Your task to perform on an android device: uninstall "Yahoo Mail" Image 0: 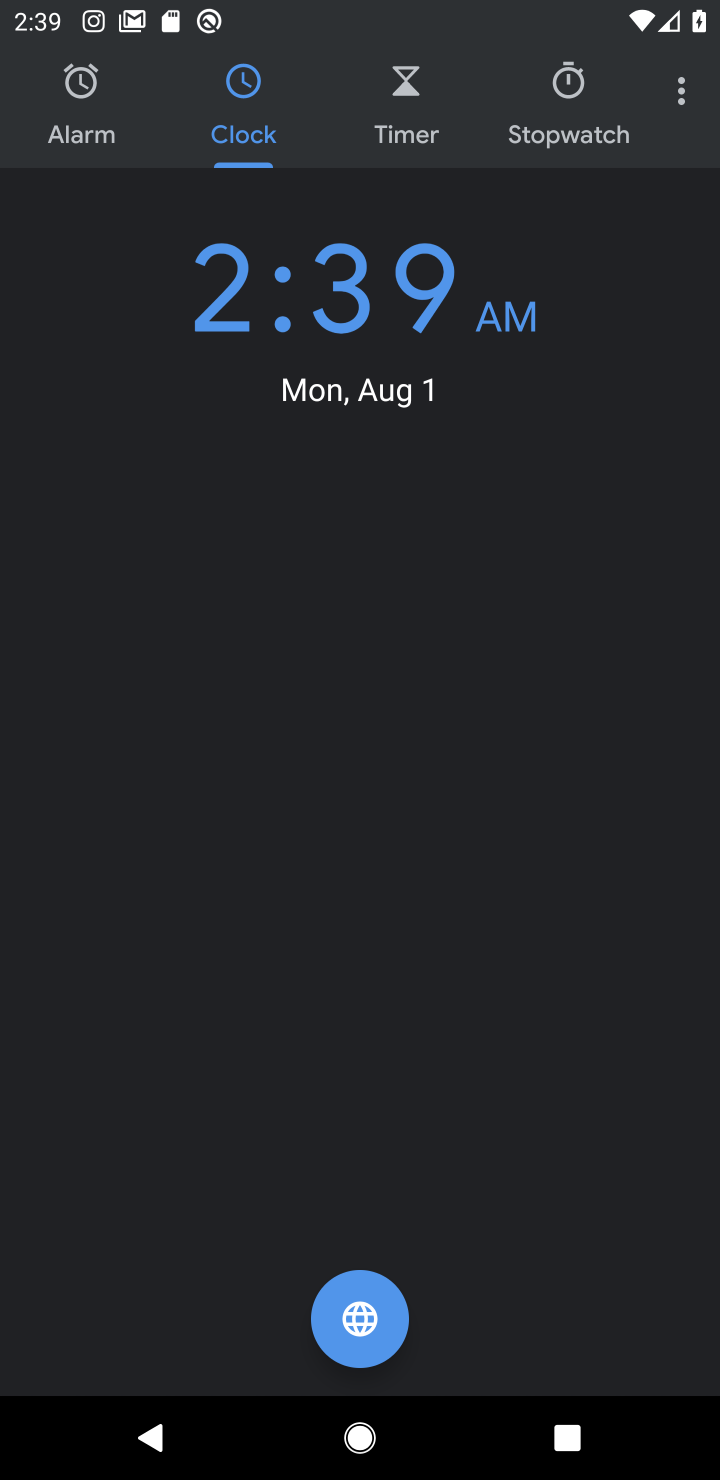
Step 0: press home button
Your task to perform on an android device: uninstall "Yahoo Mail" Image 1: 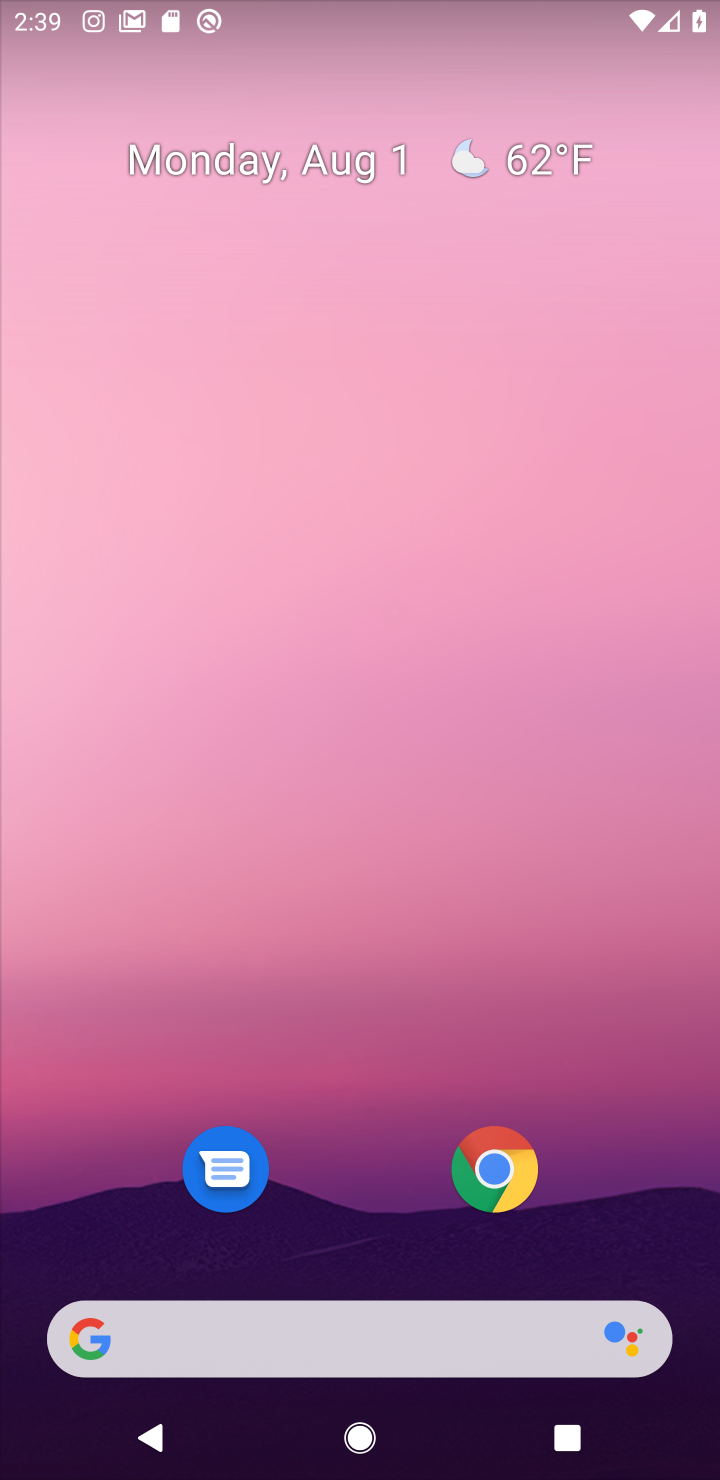
Step 1: drag from (310, 1235) to (379, 175)
Your task to perform on an android device: uninstall "Yahoo Mail" Image 2: 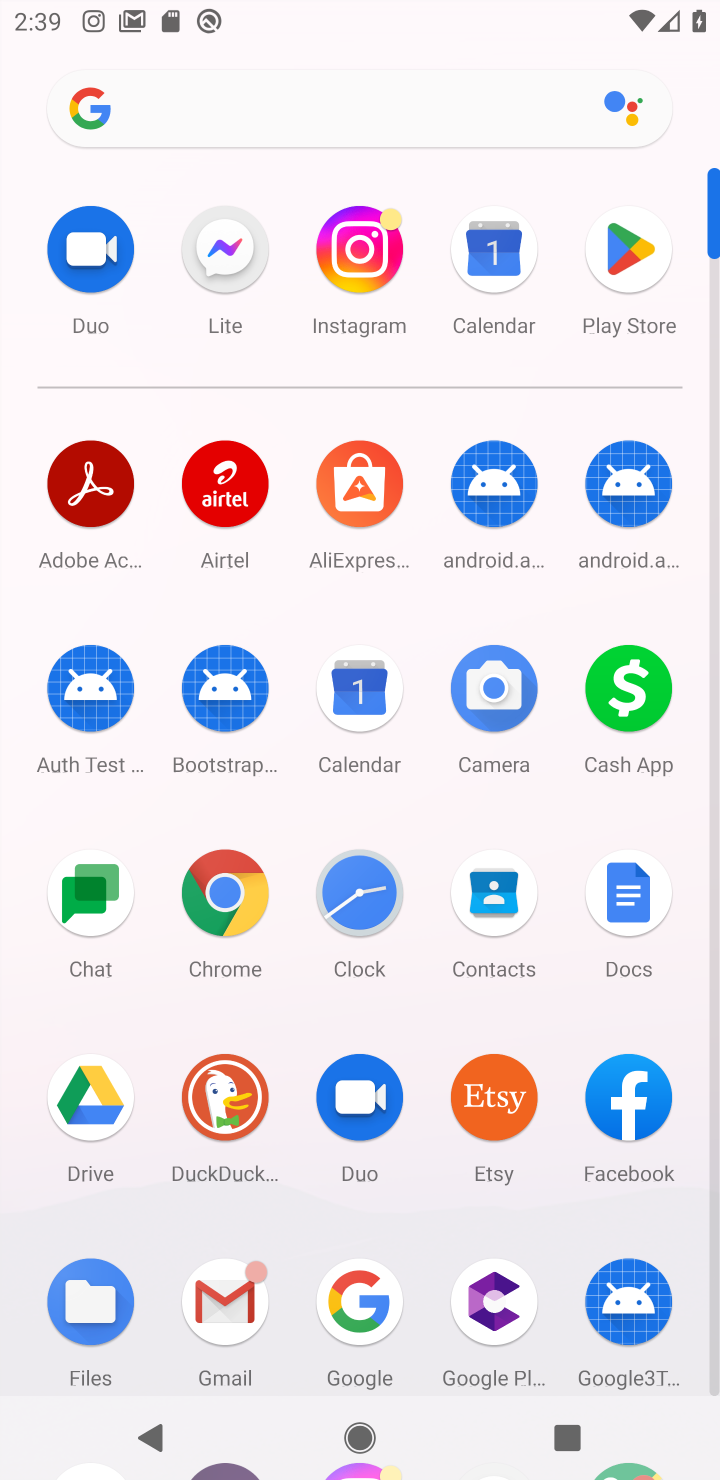
Step 2: click (628, 317)
Your task to perform on an android device: uninstall "Yahoo Mail" Image 3: 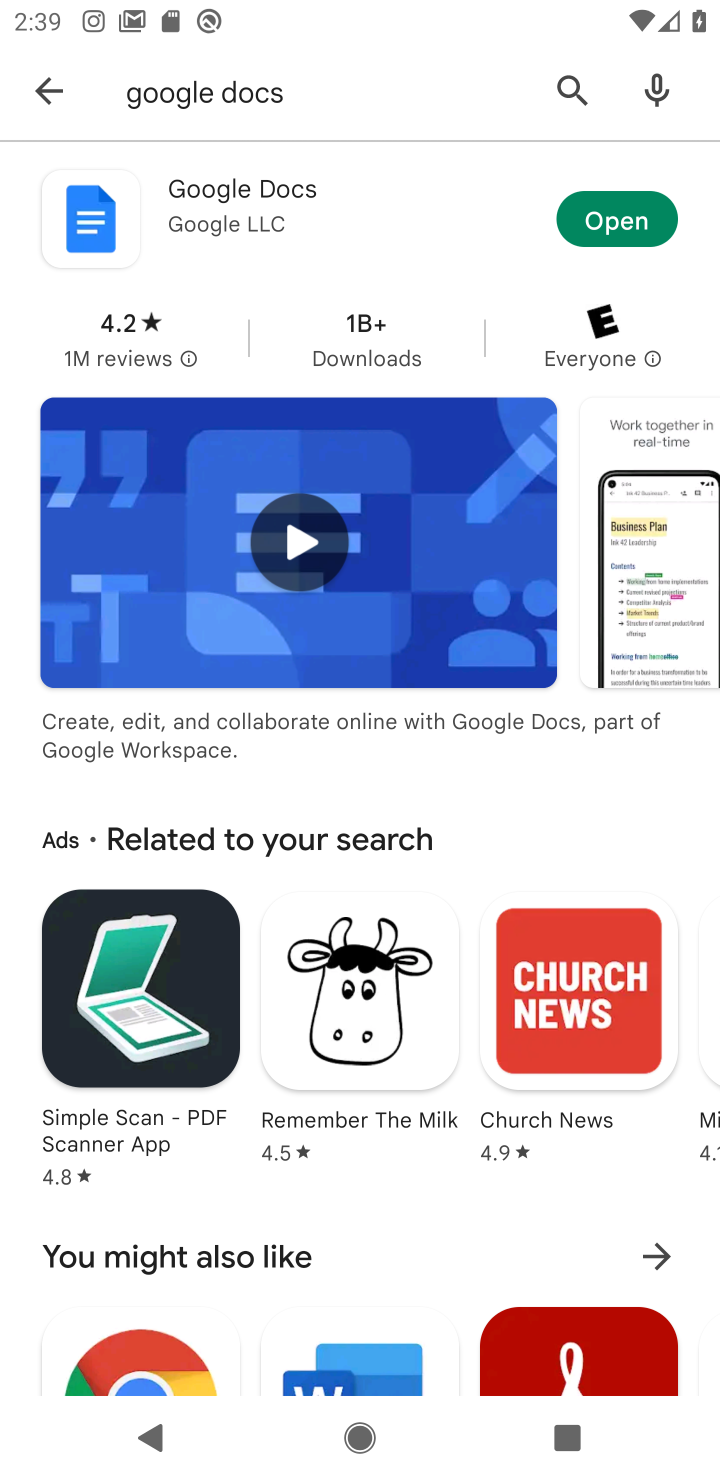
Step 3: click (43, 84)
Your task to perform on an android device: uninstall "Yahoo Mail" Image 4: 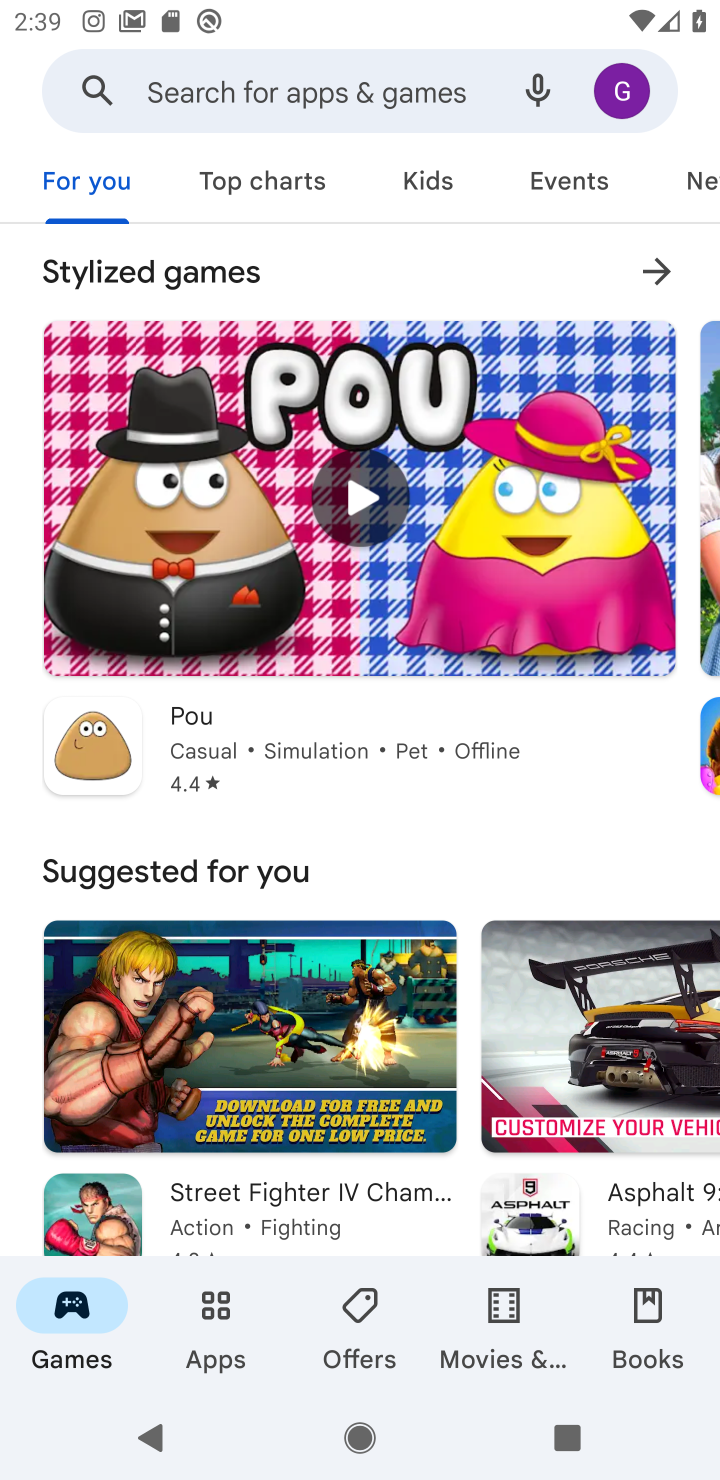
Step 4: click (230, 84)
Your task to perform on an android device: uninstall "Yahoo Mail" Image 5: 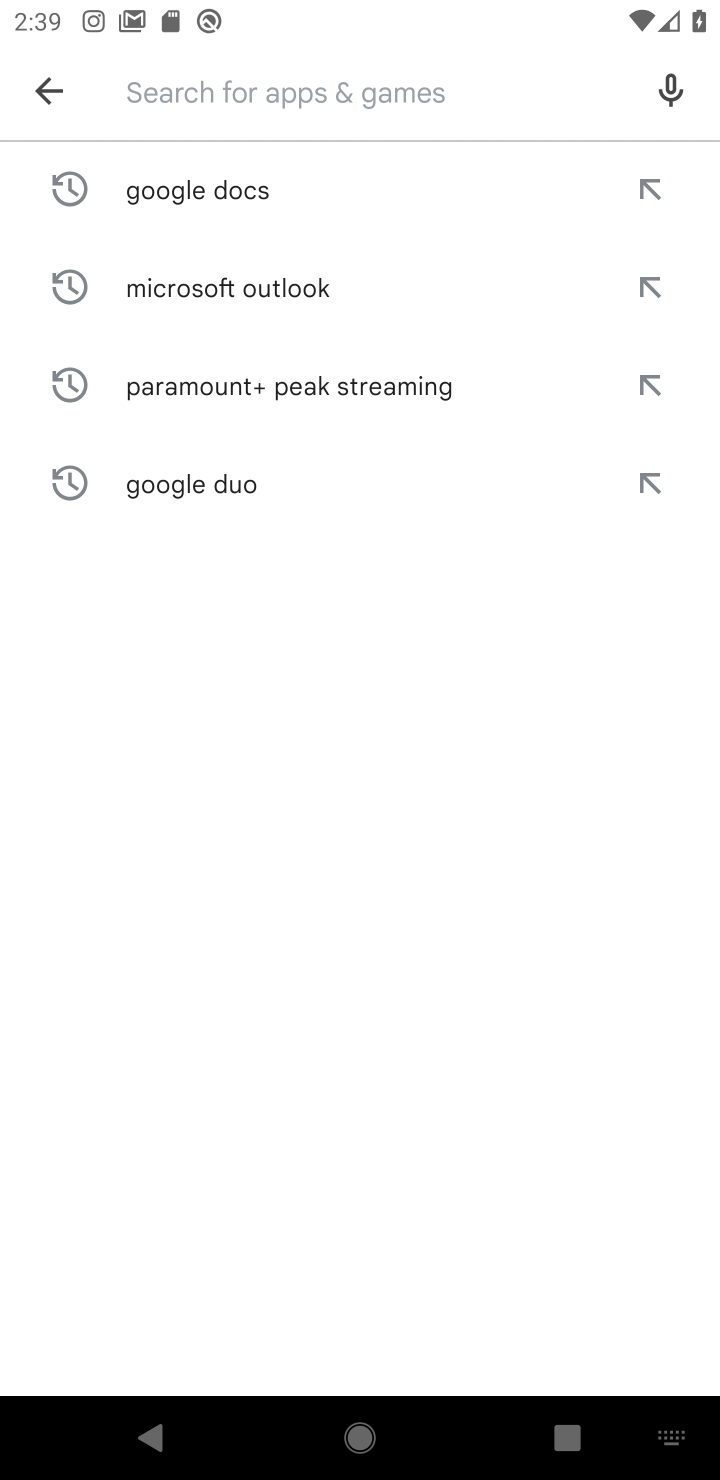
Step 5: type "Yahoo Mail"
Your task to perform on an android device: uninstall "Yahoo Mail" Image 6: 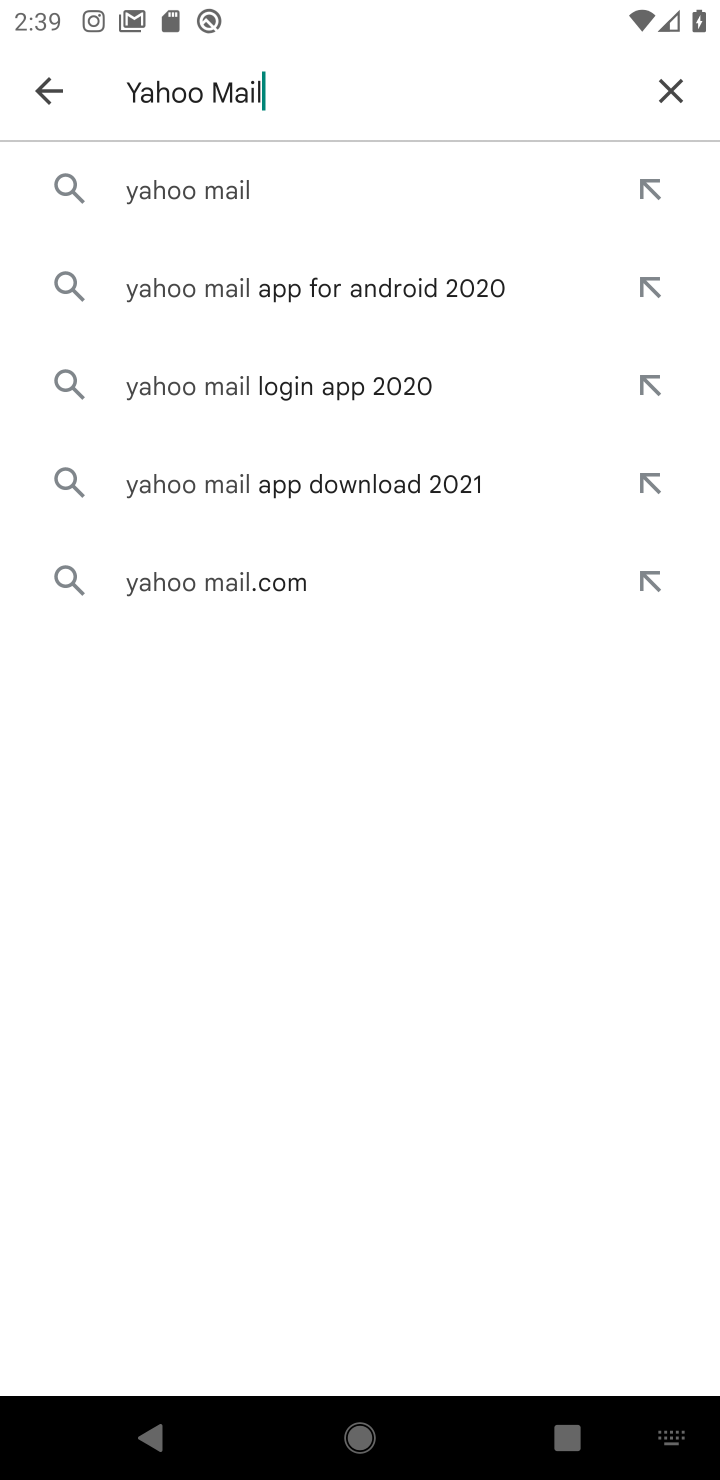
Step 6: click (206, 191)
Your task to perform on an android device: uninstall "Yahoo Mail" Image 7: 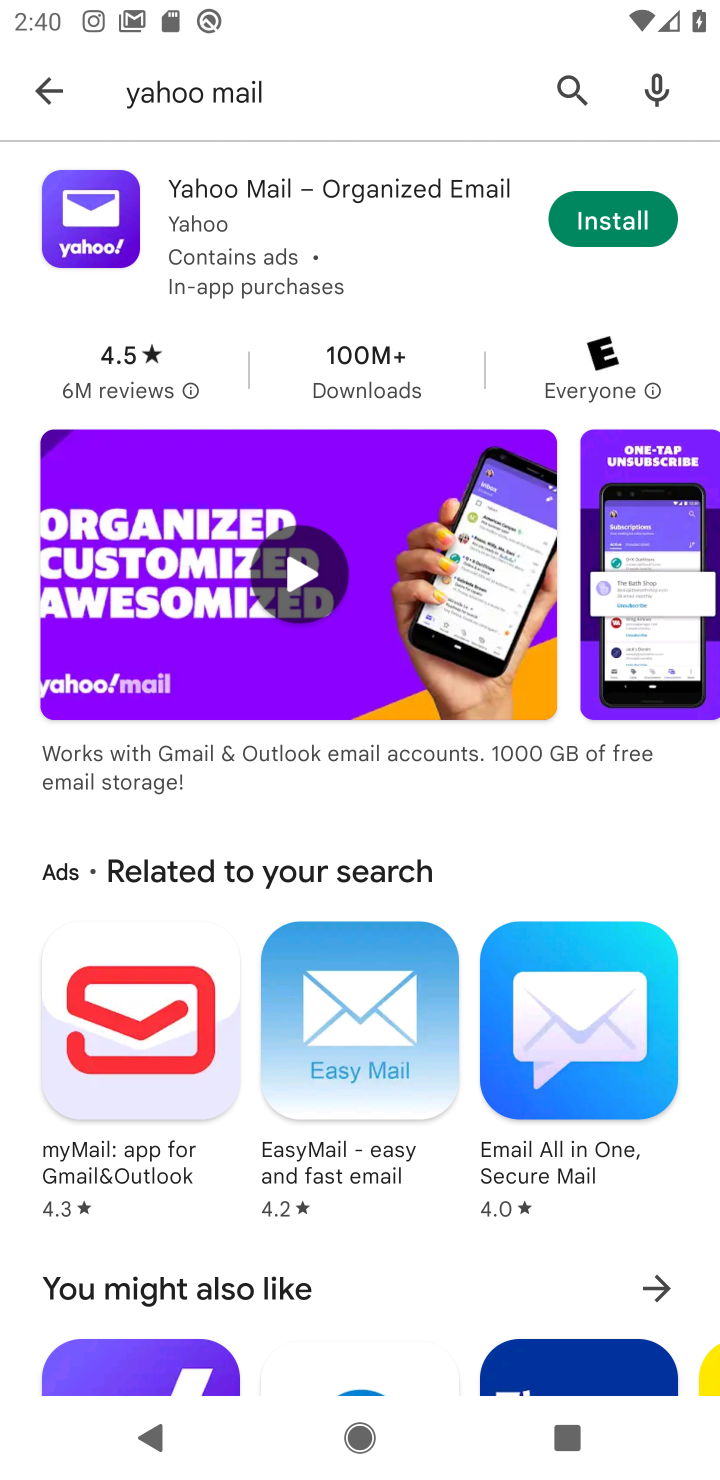
Step 7: task complete